Your task to perform on an android device: Search for Italian restaurants on Maps Image 0: 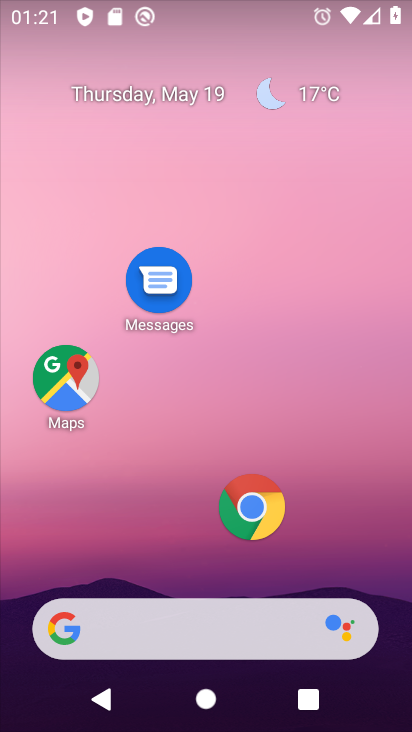
Step 0: drag from (228, 512) to (239, 216)
Your task to perform on an android device: Search for Italian restaurants on Maps Image 1: 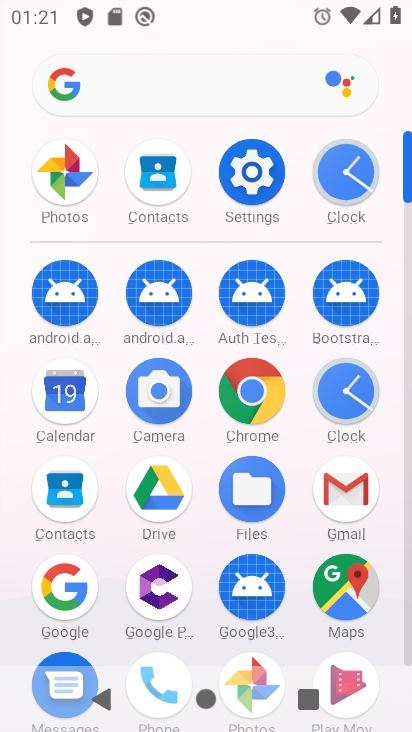
Step 1: click (353, 585)
Your task to perform on an android device: Search for Italian restaurants on Maps Image 2: 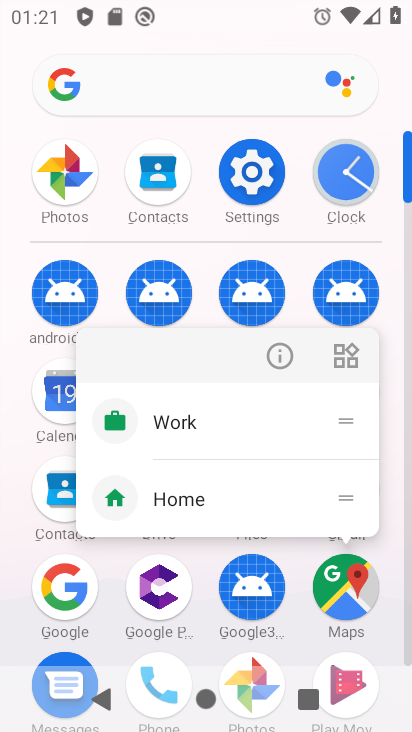
Step 2: click (338, 588)
Your task to perform on an android device: Search for Italian restaurants on Maps Image 3: 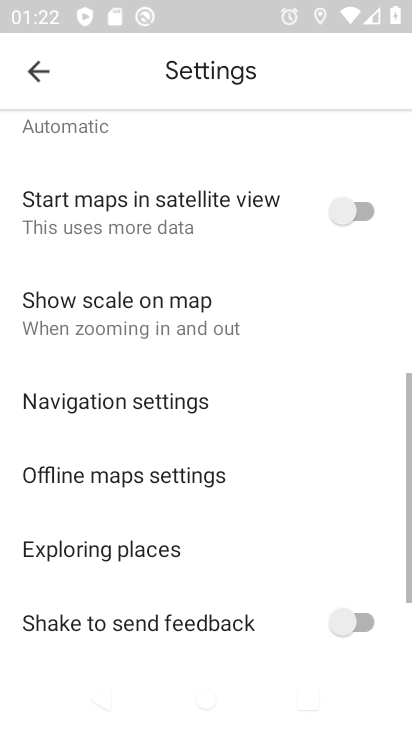
Step 3: click (18, 69)
Your task to perform on an android device: Search for Italian restaurants on Maps Image 4: 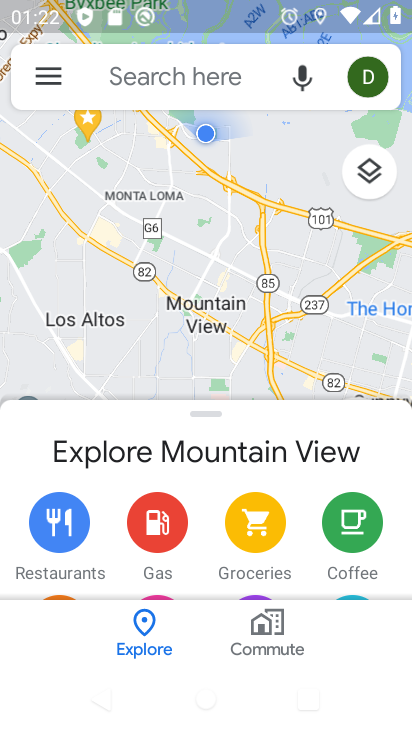
Step 4: click (111, 80)
Your task to perform on an android device: Search for Italian restaurants on Maps Image 5: 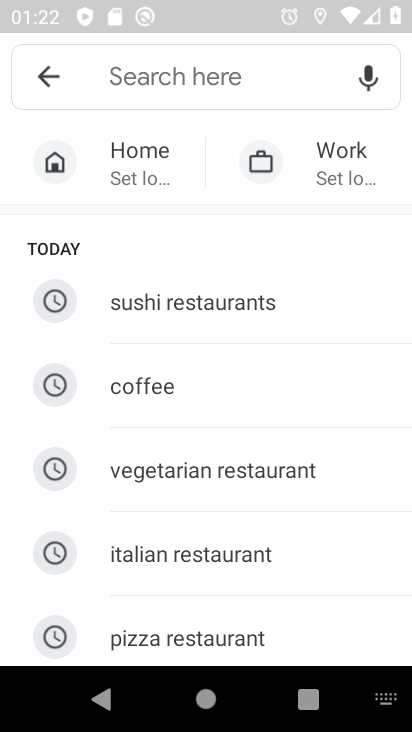
Step 5: click (171, 569)
Your task to perform on an android device: Search for Italian restaurants on Maps Image 6: 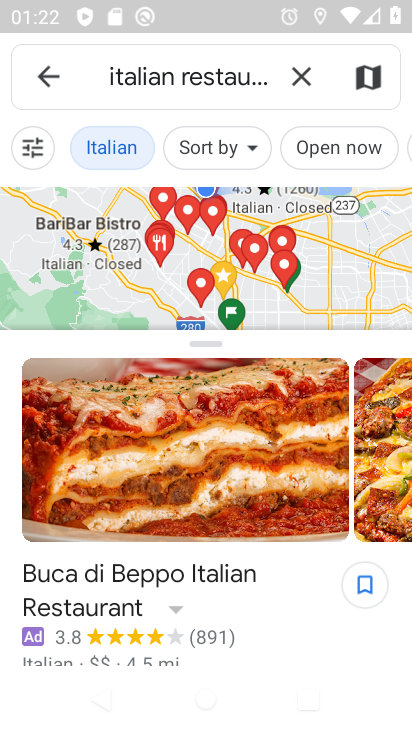
Step 6: task complete